Your task to perform on an android device: Open display settings Image 0: 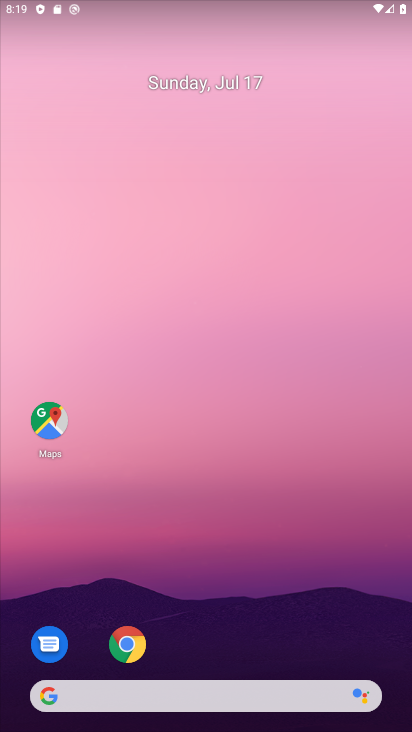
Step 0: drag from (242, 532) to (178, 4)
Your task to perform on an android device: Open display settings Image 1: 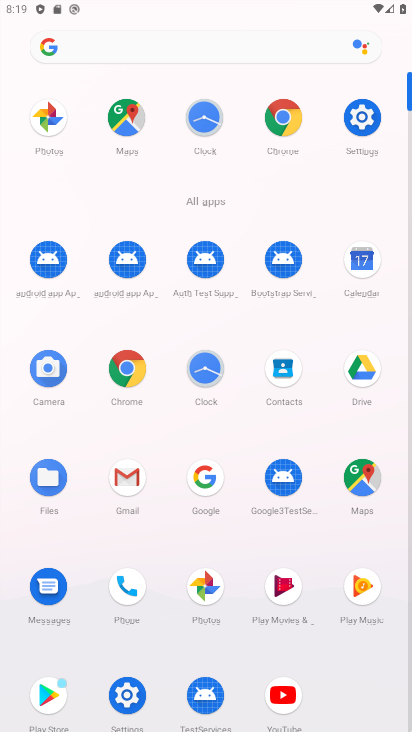
Step 1: click (361, 120)
Your task to perform on an android device: Open display settings Image 2: 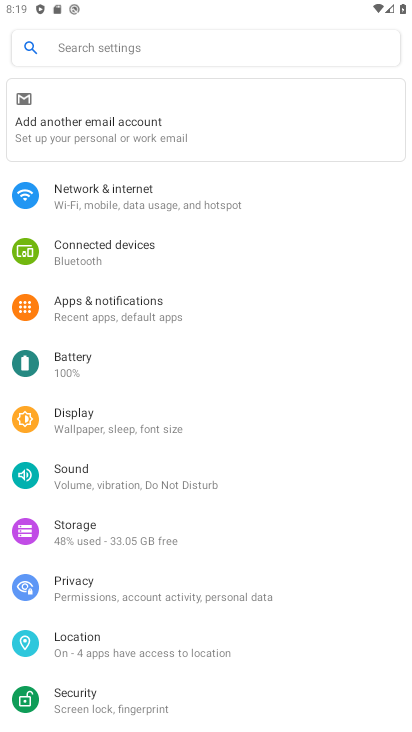
Step 2: click (81, 409)
Your task to perform on an android device: Open display settings Image 3: 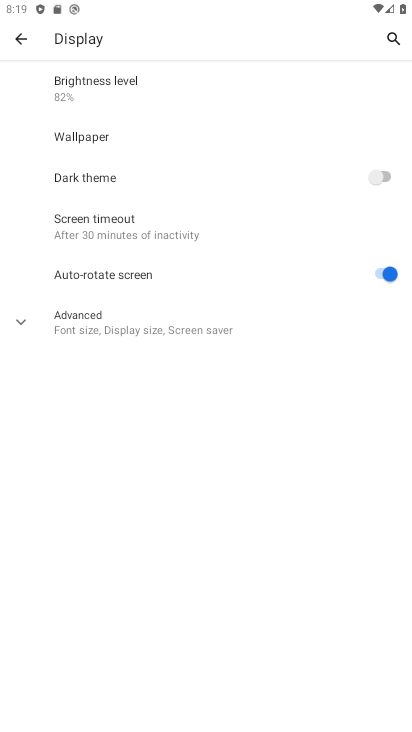
Step 3: task complete